Your task to perform on an android device: Go to display settings Image 0: 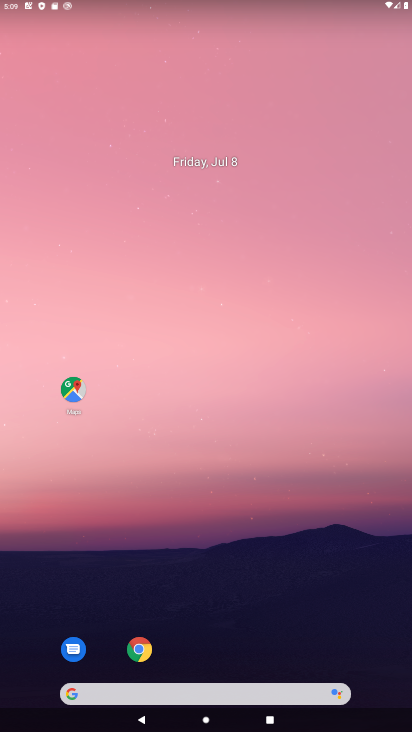
Step 0: drag from (296, 583) to (206, 143)
Your task to perform on an android device: Go to display settings Image 1: 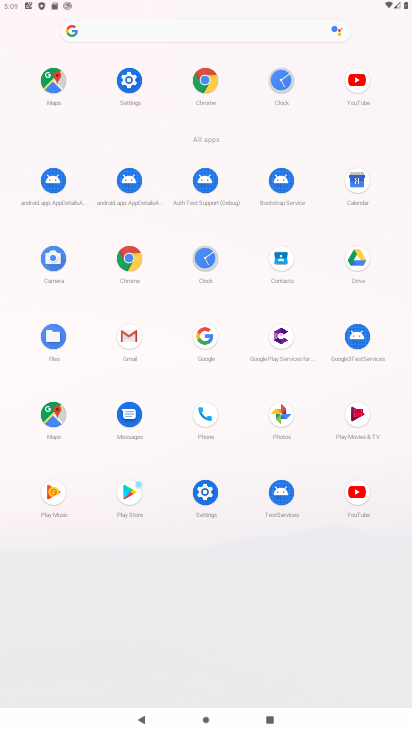
Step 1: click (136, 83)
Your task to perform on an android device: Go to display settings Image 2: 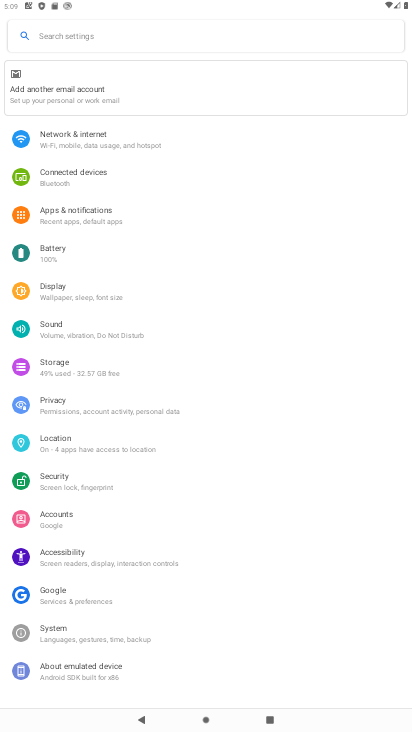
Step 2: click (70, 291)
Your task to perform on an android device: Go to display settings Image 3: 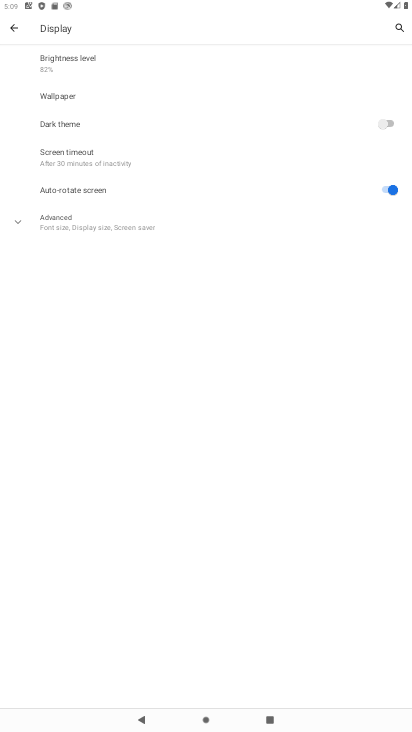
Step 3: task complete